Your task to perform on an android device: turn on airplane mode Image 0: 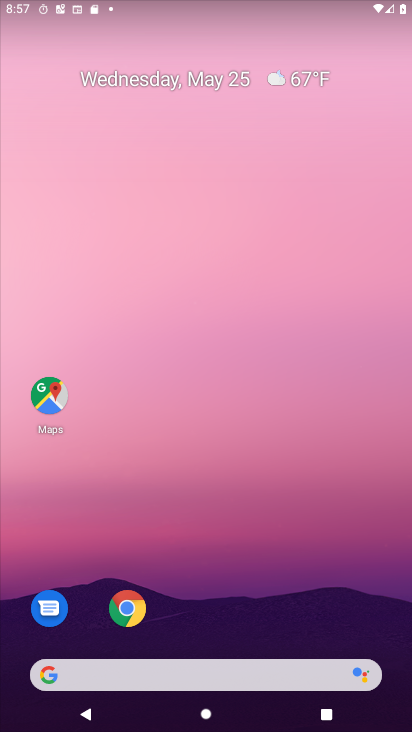
Step 0: drag from (228, 728) to (199, 100)
Your task to perform on an android device: turn on airplane mode Image 1: 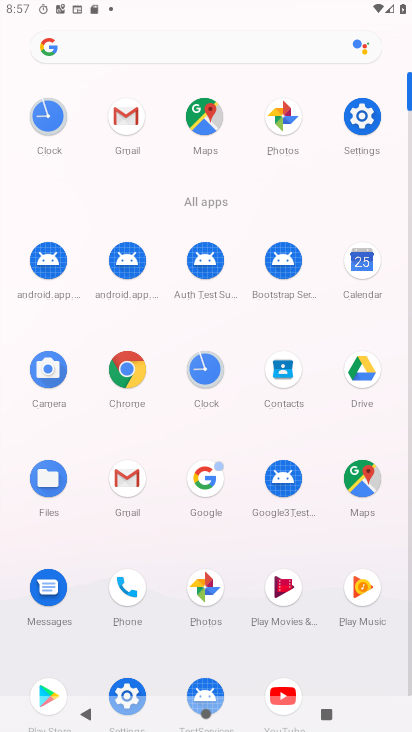
Step 1: click (355, 117)
Your task to perform on an android device: turn on airplane mode Image 2: 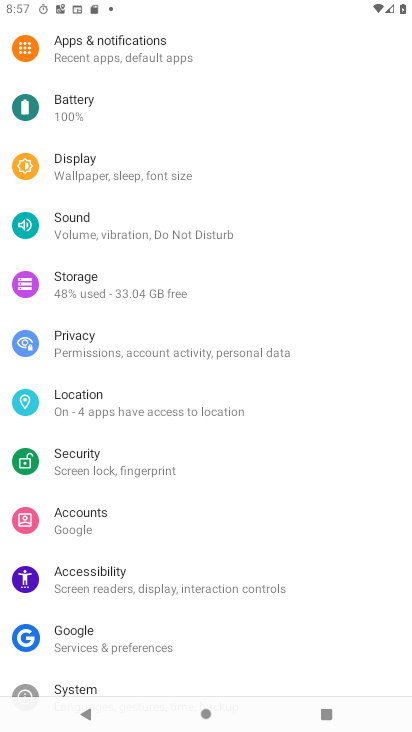
Step 2: drag from (144, 146) to (166, 595)
Your task to perform on an android device: turn on airplane mode Image 3: 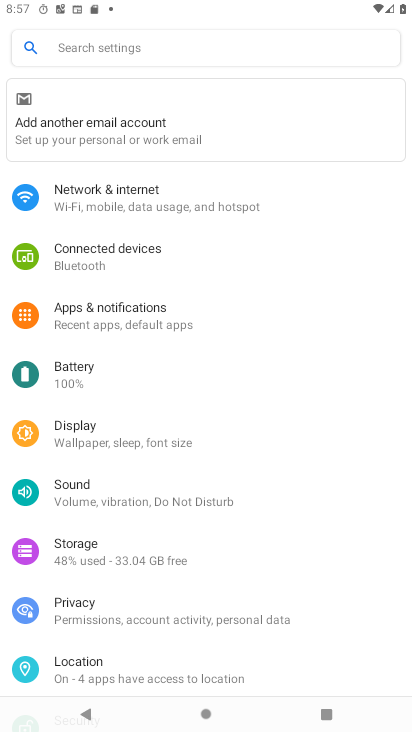
Step 3: click (123, 193)
Your task to perform on an android device: turn on airplane mode Image 4: 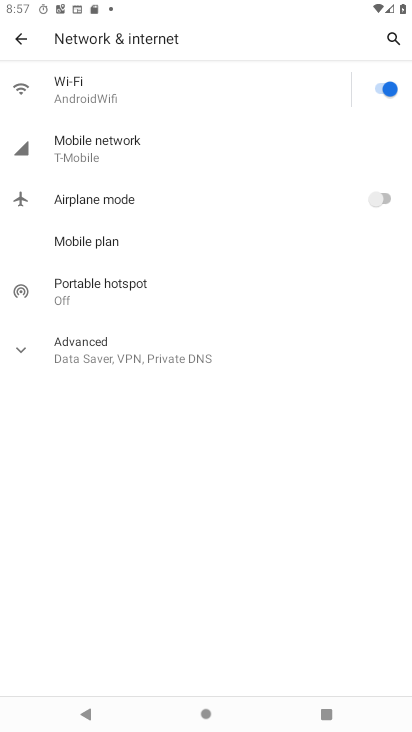
Step 4: click (388, 196)
Your task to perform on an android device: turn on airplane mode Image 5: 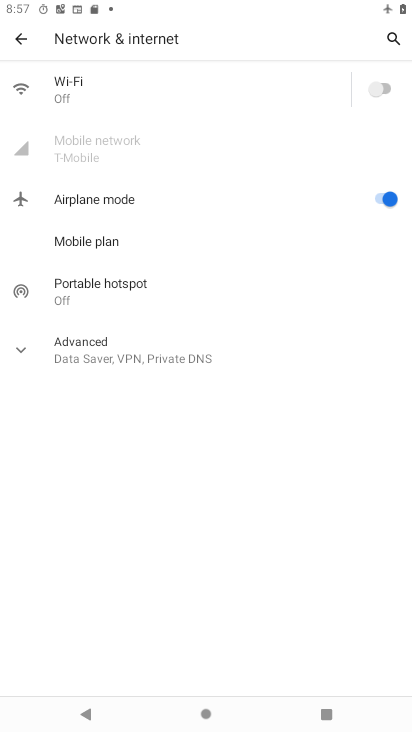
Step 5: task complete